Your task to perform on an android device: Set the phone to "Do not disturb". Image 0: 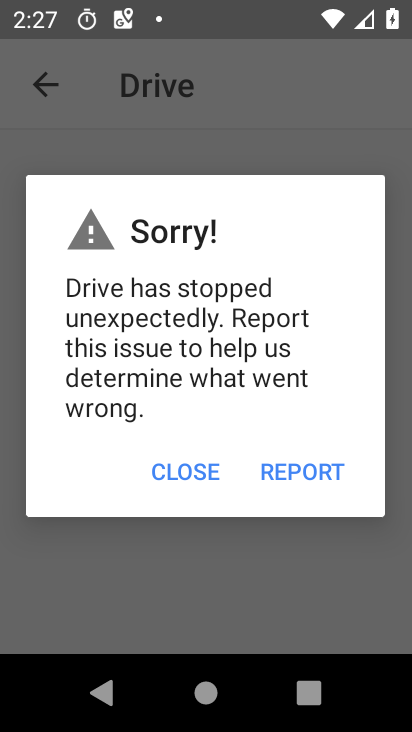
Step 0: press home button
Your task to perform on an android device: Set the phone to "Do not disturb". Image 1: 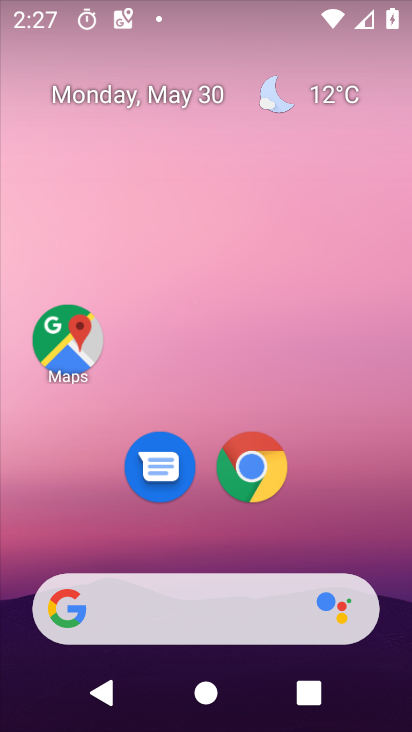
Step 1: drag from (391, 595) to (386, 190)
Your task to perform on an android device: Set the phone to "Do not disturb". Image 2: 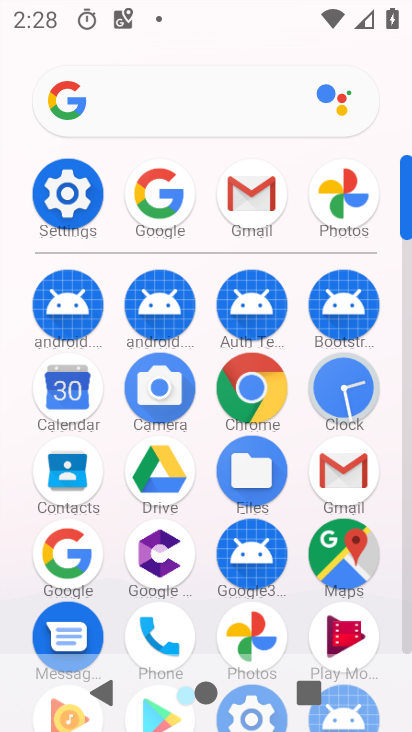
Step 2: click (67, 216)
Your task to perform on an android device: Set the phone to "Do not disturb". Image 3: 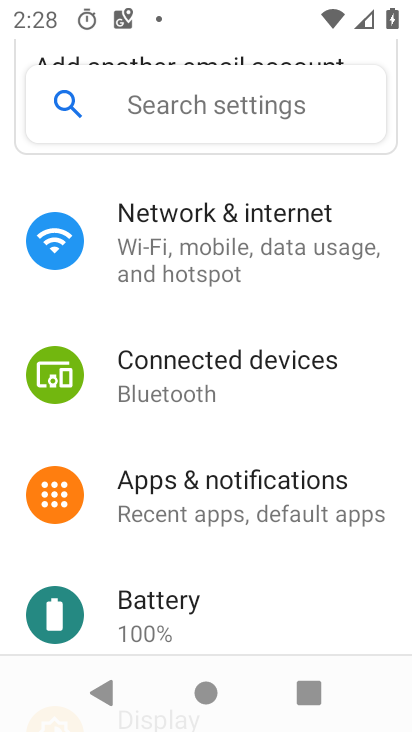
Step 3: drag from (259, 605) to (273, 283)
Your task to perform on an android device: Set the phone to "Do not disturb". Image 4: 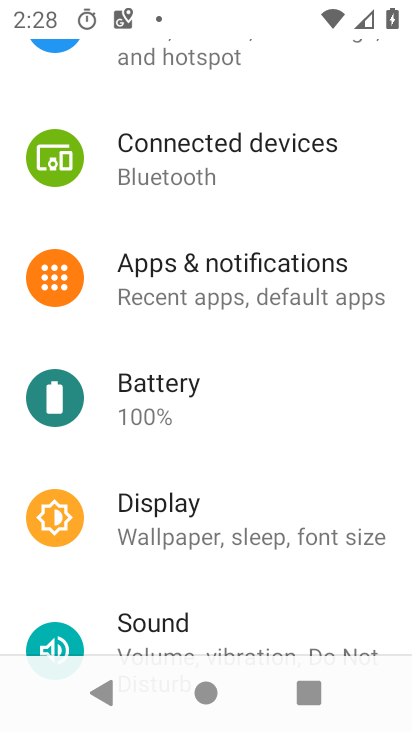
Step 4: drag from (267, 578) to (280, 346)
Your task to perform on an android device: Set the phone to "Do not disturb". Image 5: 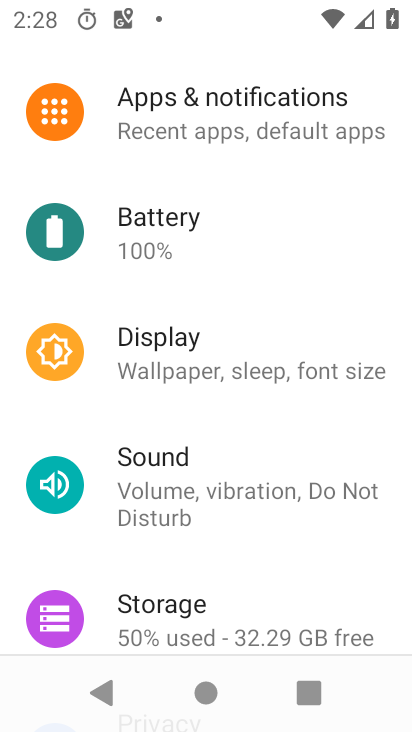
Step 5: click (147, 466)
Your task to perform on an android device: Set the phone to "Do not disturb". Image 6: 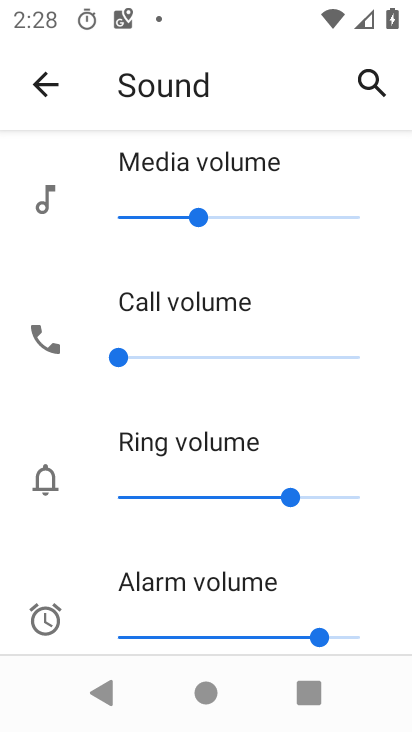
Step 6: drag from (370, 616) to (379, 201)
Your task to perform on an android device: Set the phone to "Do not disturb". Image 7: 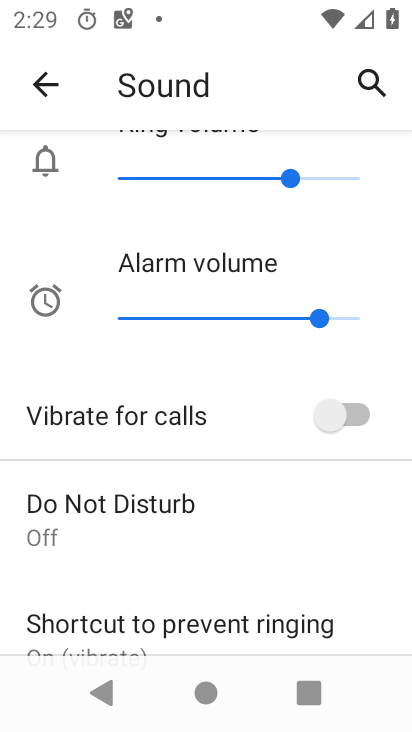
Step 7: click (100, 499)
Your task to perform on an android device: Set the phone to "Do not disturb". Image 8: 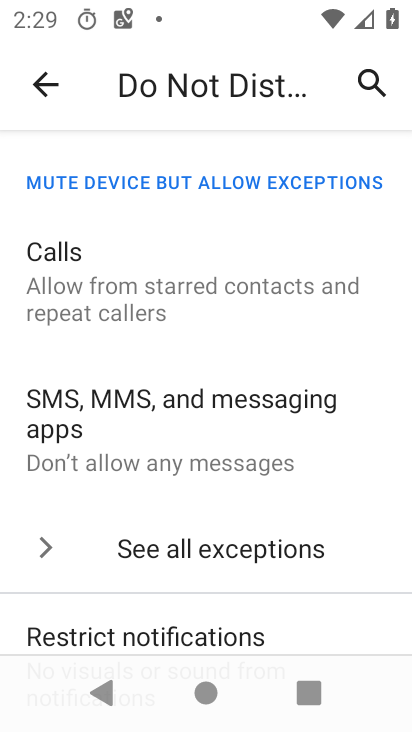
Step 8: drag from (253, 622) to (283, 120)
Your task to perform on an android device: Set the phone to "Do not disturb". Image 9: 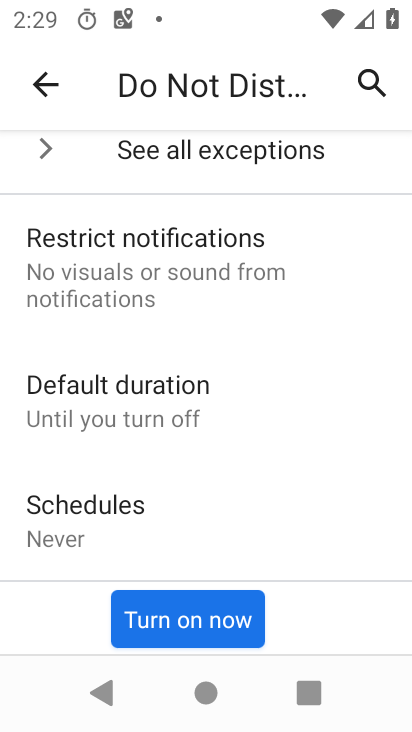
Step 9: click (214, 624)
Your task to perform on an android device: Set the phone to "Do not disturb". Image 10: 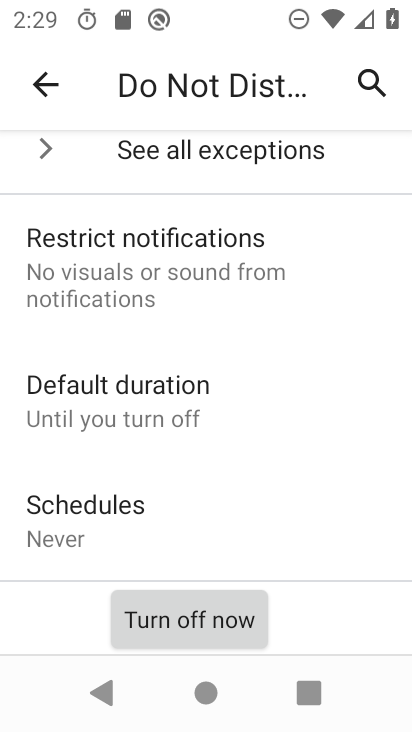
Step 10: task complete